Your task to perform on an android device: What's the weather today? Image 0: 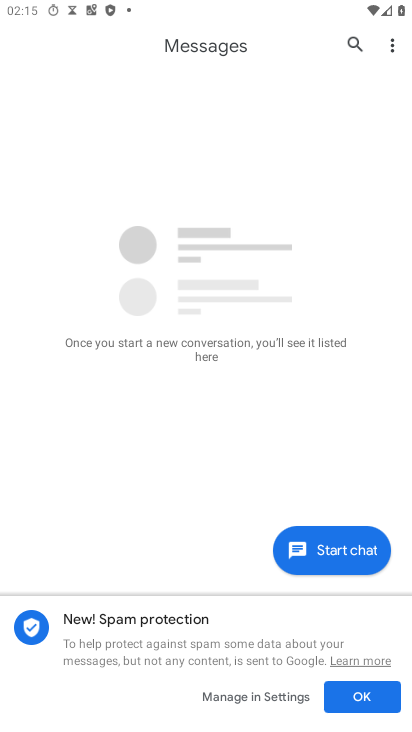
Step 0: press home button
Your task to perform on an android device: What's the weather today? Image 1: 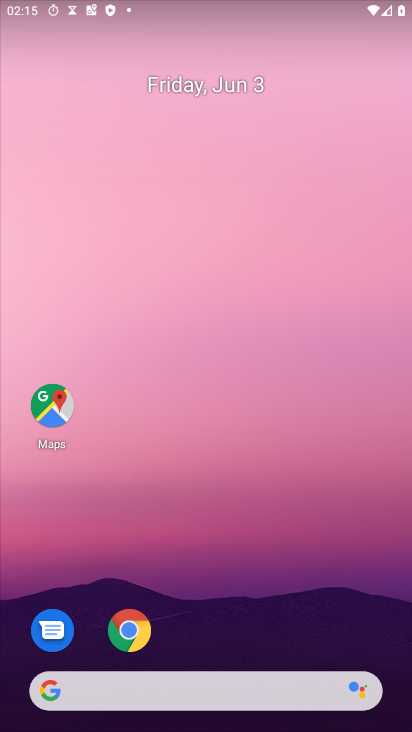
Step 1: click (239, 687)
Your task to perform on an android device: What's the weather today? Image 2: 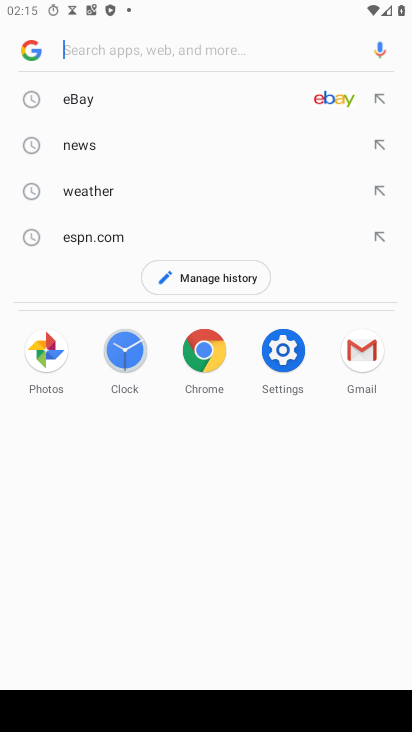
Step 2: click (123, 185)
Your task to perform on an android device: What's the weather today? Image 3: 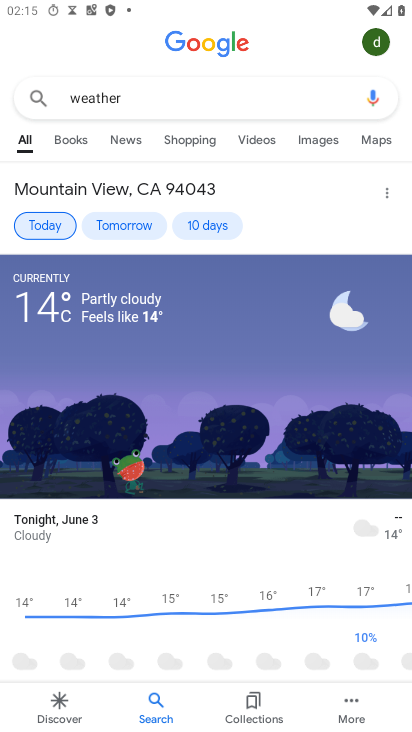
Step 3: task complete